Your task to perform on an android device: Open settings Image 0: 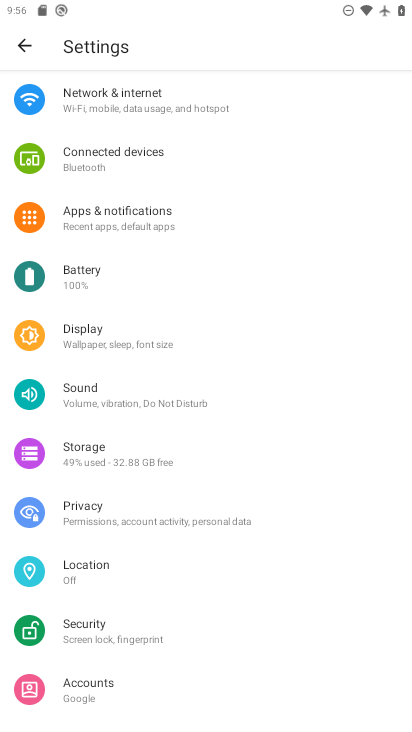
Step 0: drag from (165, 586) to (189, 159)
Your task to perform on an android device: Open settings Image 1: 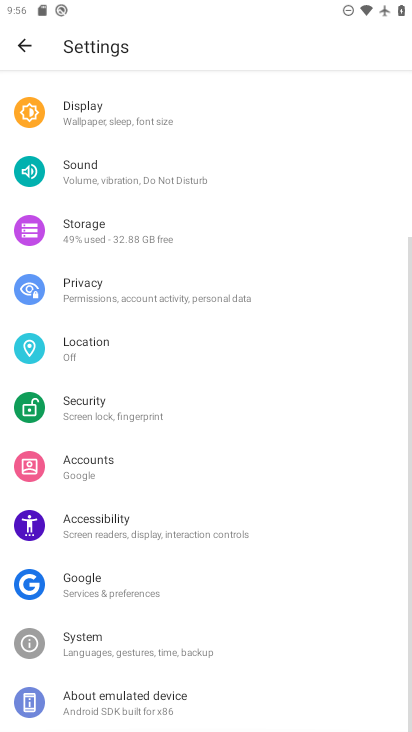
Step 1: task complete